Your task to perform on an android device: Go to Google maps Image 0: 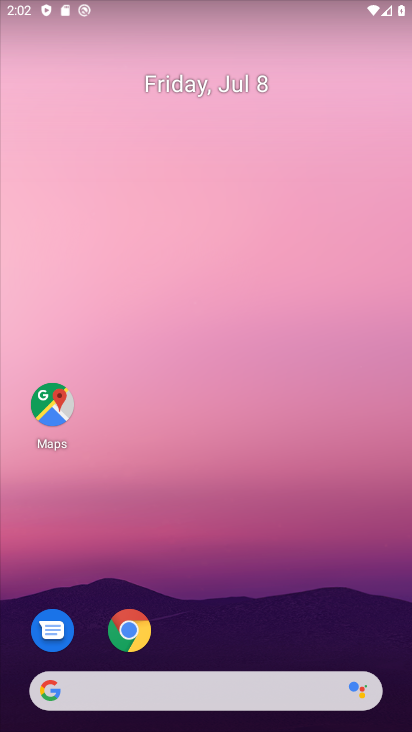
Step 0: drag from (213, 682) to (278, 77)
Your task to perform on an android device: Go to Google maps Image 1: 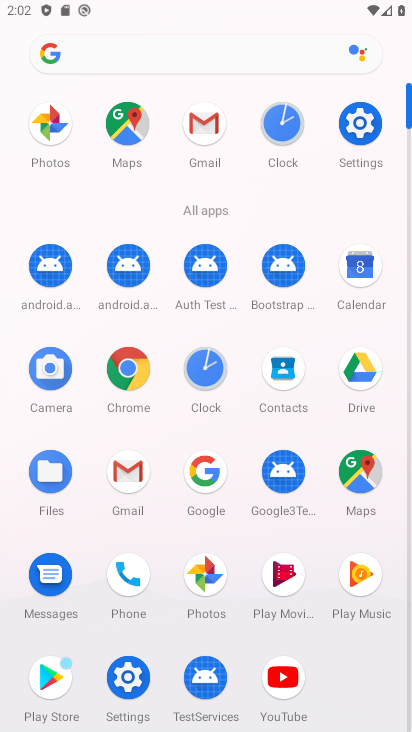
Step 1: click (372, 473)
Your task to perform on an android device: Go to Google maps Image 2: 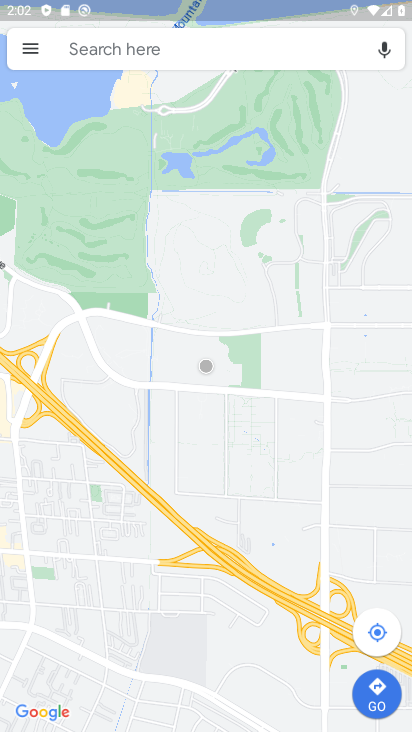
Step 2: task complete